Your task to perform on an android device: empty trash in the gmail app Image 0: 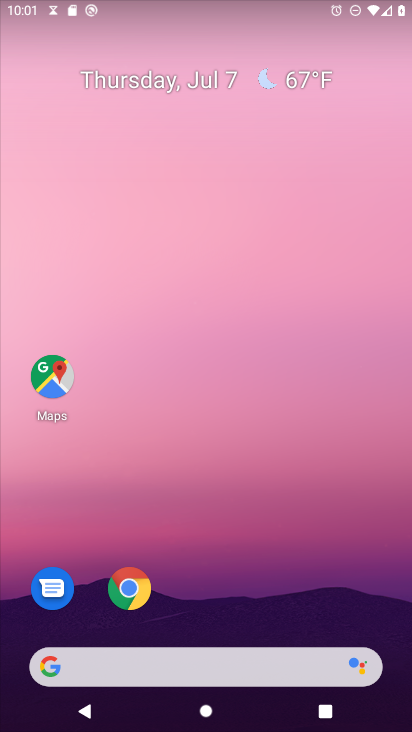
Step 0: drag from (222, 576) to (158, 135)
Your task to perform on an android device: empty trash in the gmail app Image 1: 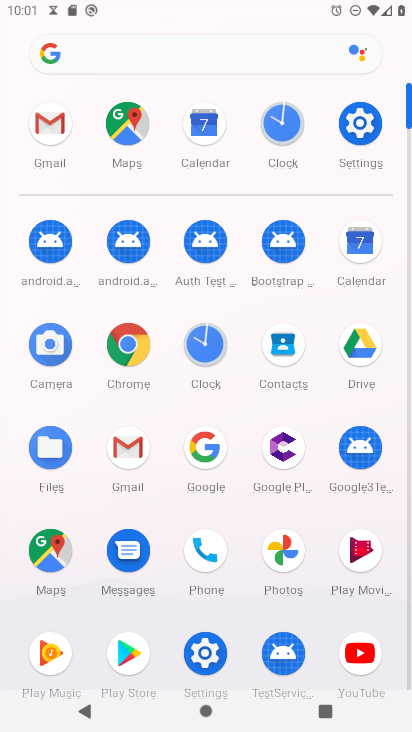
Step 1: click (48, 119)
Your task to perform on an android device: empty trash in the gmail app Image 2: 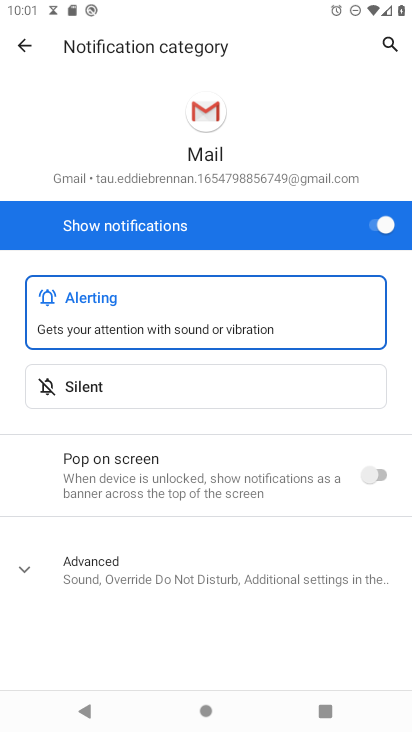
Step 2: press back button
Your task to perform on an android device: empty trash in the gmail app Image 3: 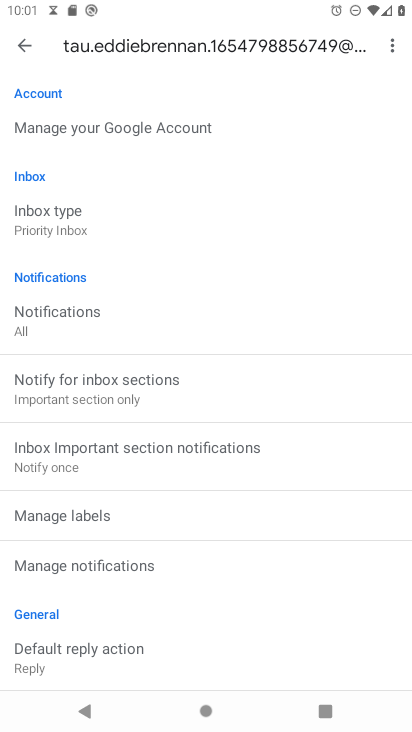
Step 3: press back button
Your task to perform on an android device: empty trash in the gmail app Image 4: 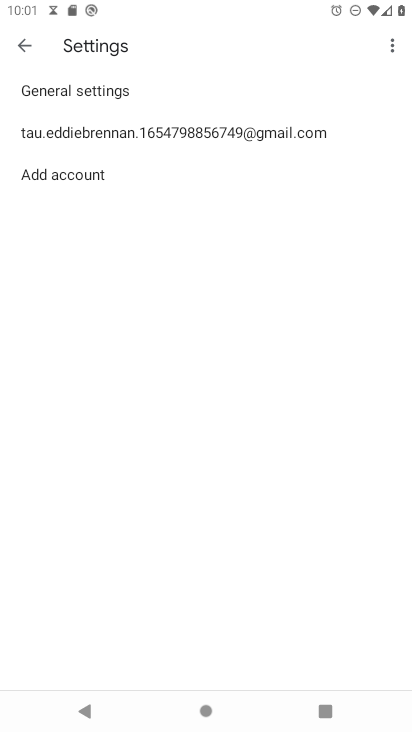
Step 4: press back button
Your task to perform on an android device: empty trash in the gmail app Image 5: 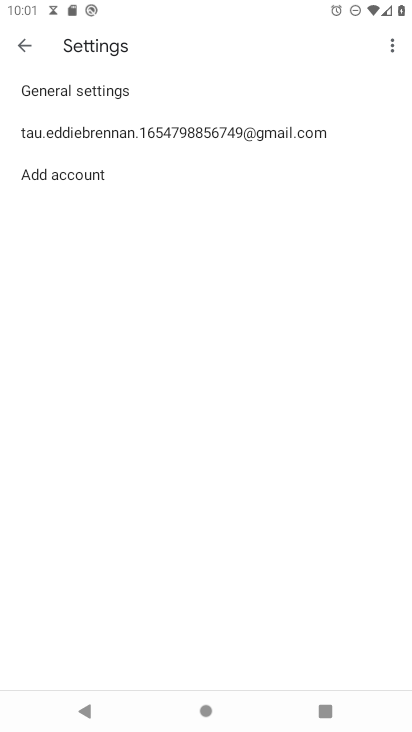
Step 5: press back button
Your task to perform on an android device: empty trash in the gmail app Image 6: 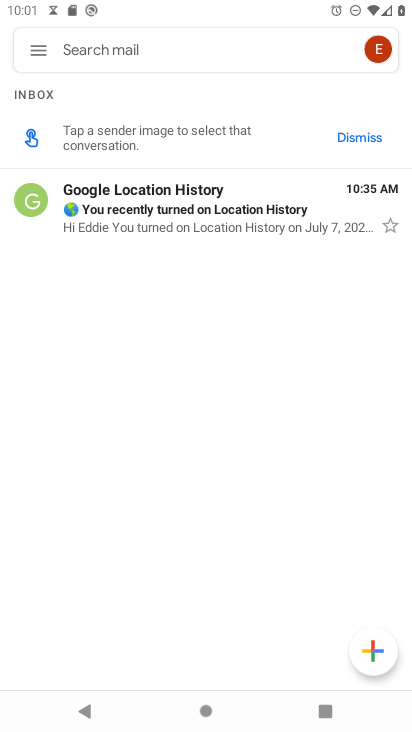
Step 6: click (41, 52)
Your task to perform on an android device: empty trash in the gmail app Image 7: 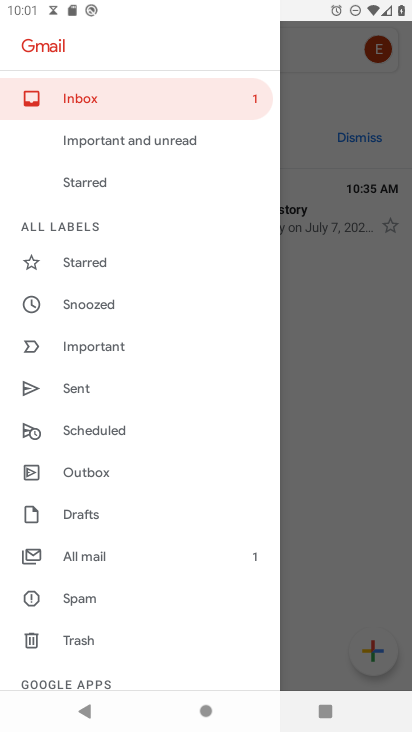
Step 7: click (82, 637)
Your task to perform on an android device: empty trash in the gmail app Image 8: 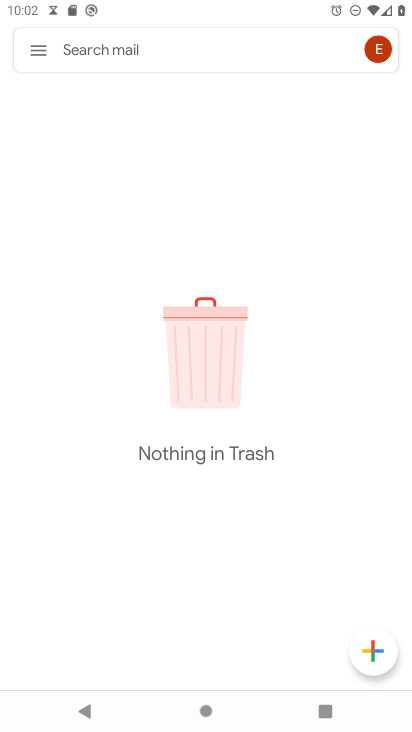
Step 8: task complete